Your task to perform on an android device: Open Reddit.com Image 0: 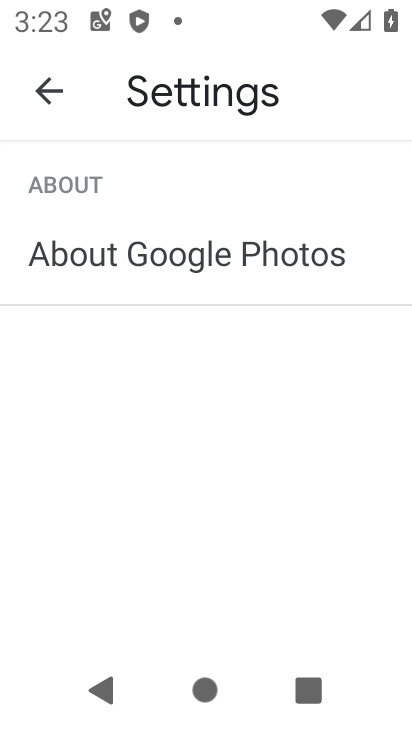
Step 0: press home button
Your task to perform on an android device: Open Reddit.com Image 1: 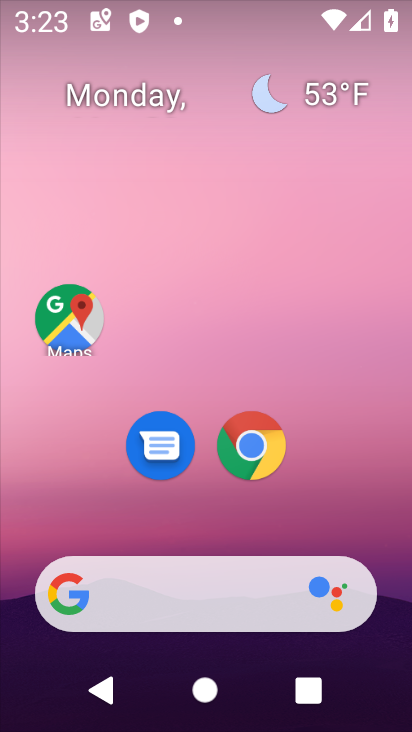
Step 1: click (265, 444)
Your task to perform on an android device: Open Reddit.com Image 2: 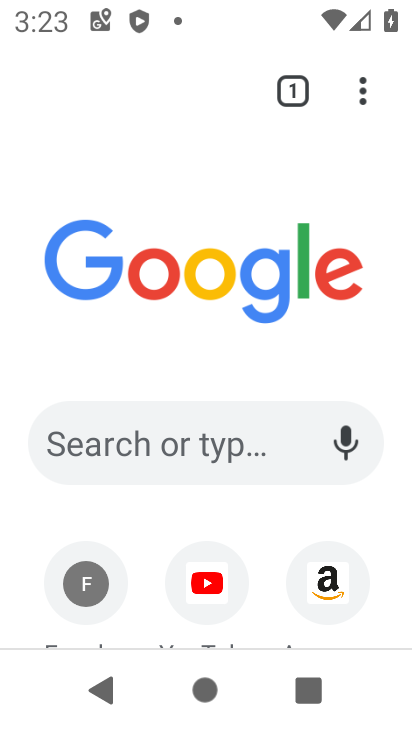
Step 2: click (212, 437)
Your task to perform on an android device: Open Reddit.com Image 3: 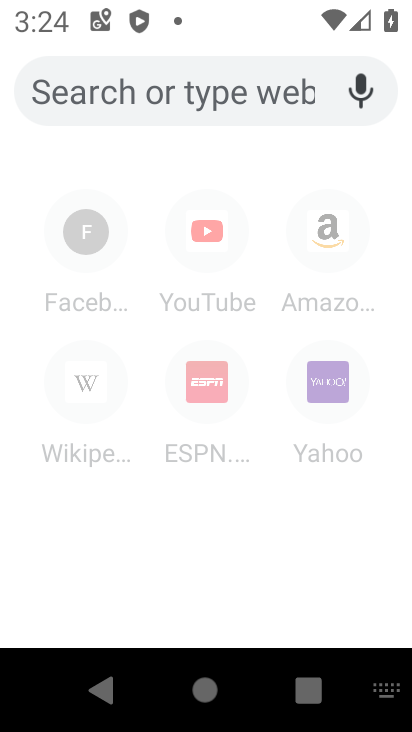
Step 3: type "Reddit.com"
Your task to perform on an android device: Open Reddit.com Image 4: 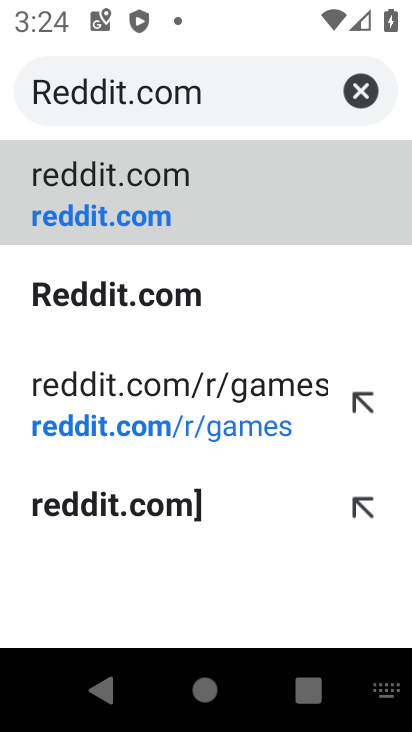
Step 4: click (182, 196)
Your task to perform on an android device: Open Reddit.com Image 5: 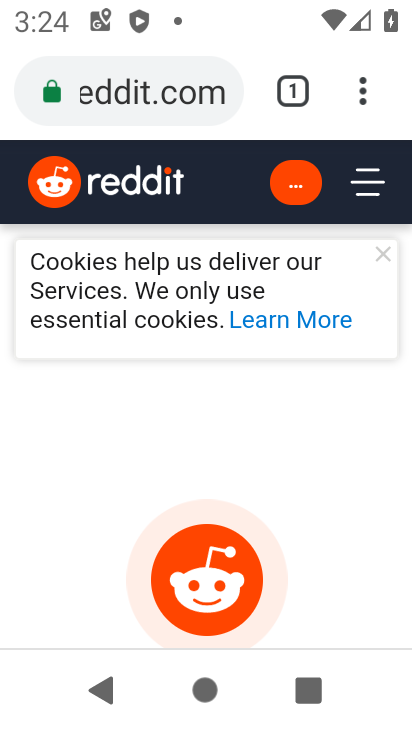
Step 5: click (381, 253)
Your task to perform on an android device: Open Reddit.com Image 6: 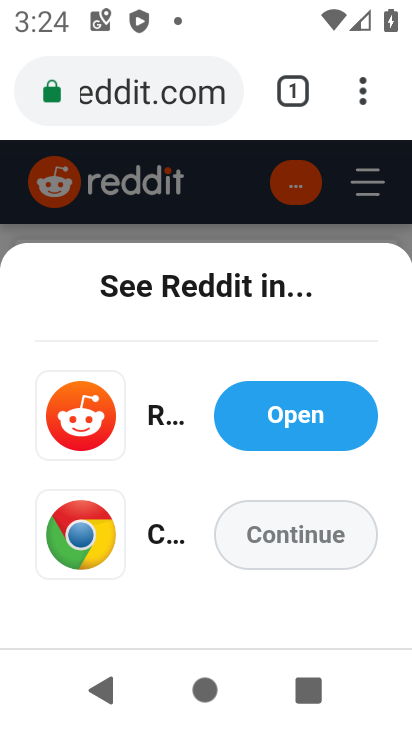
Step 6: task complete